Your task to perform on an android device: see tabs open on other devices in the chrome app Image 0: 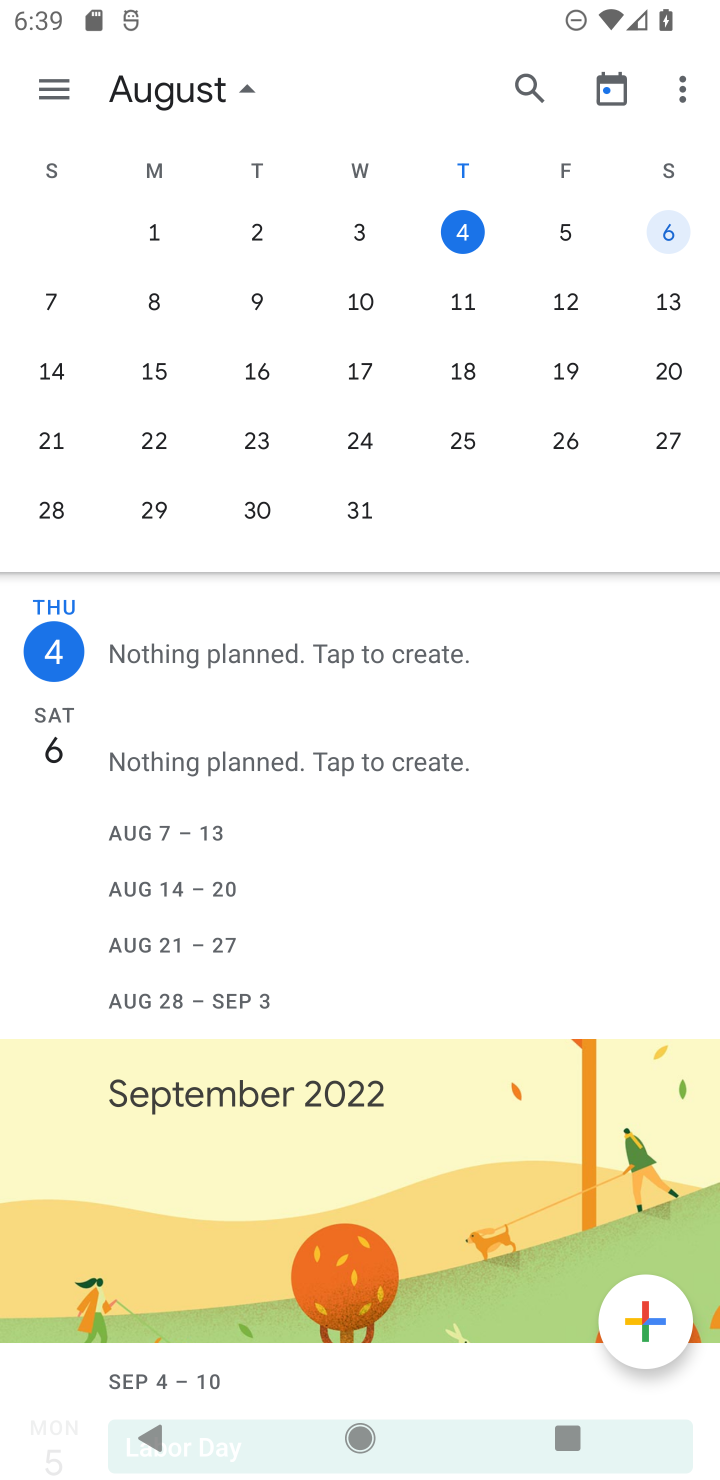
Step 0: press home button
Your task to perform on an android device: see tabs open on other devices in the chrome app Image 1: 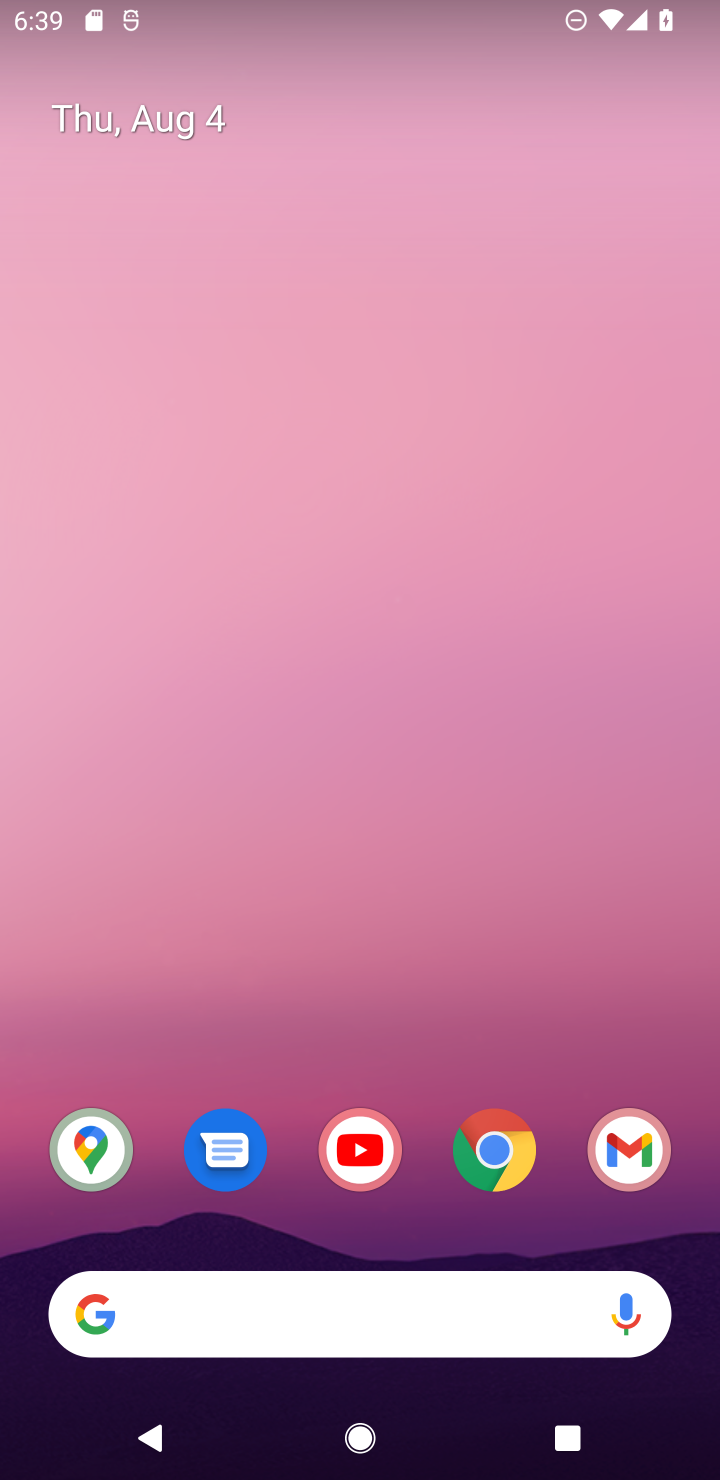
Step 1: drag from (268, 1163) to (388, 11)
Your task to perform on an android device: see tabs open on other devices in the chrome app Image 2: 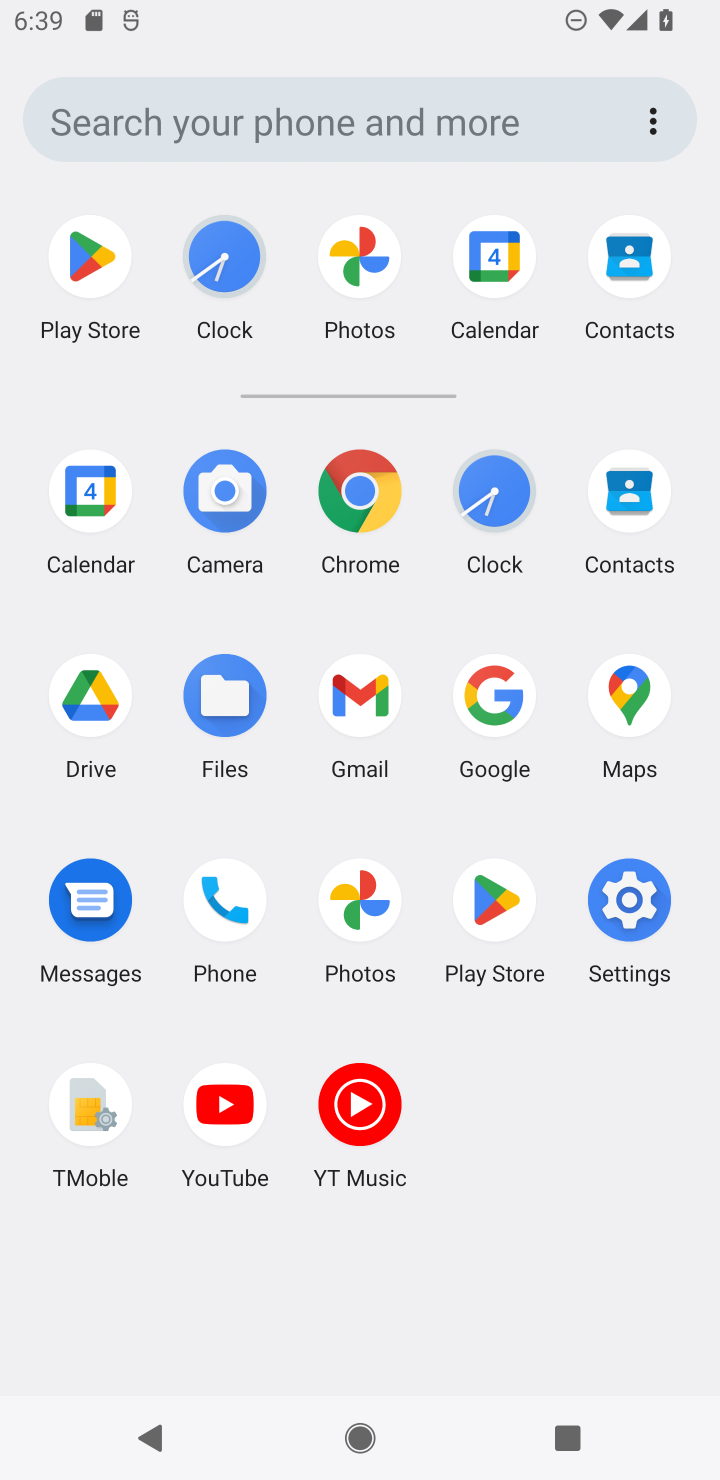
Step 2: click (358, 496)
Your task to perform on an android device: see tabs open on other devices in the chrome app Image 3: 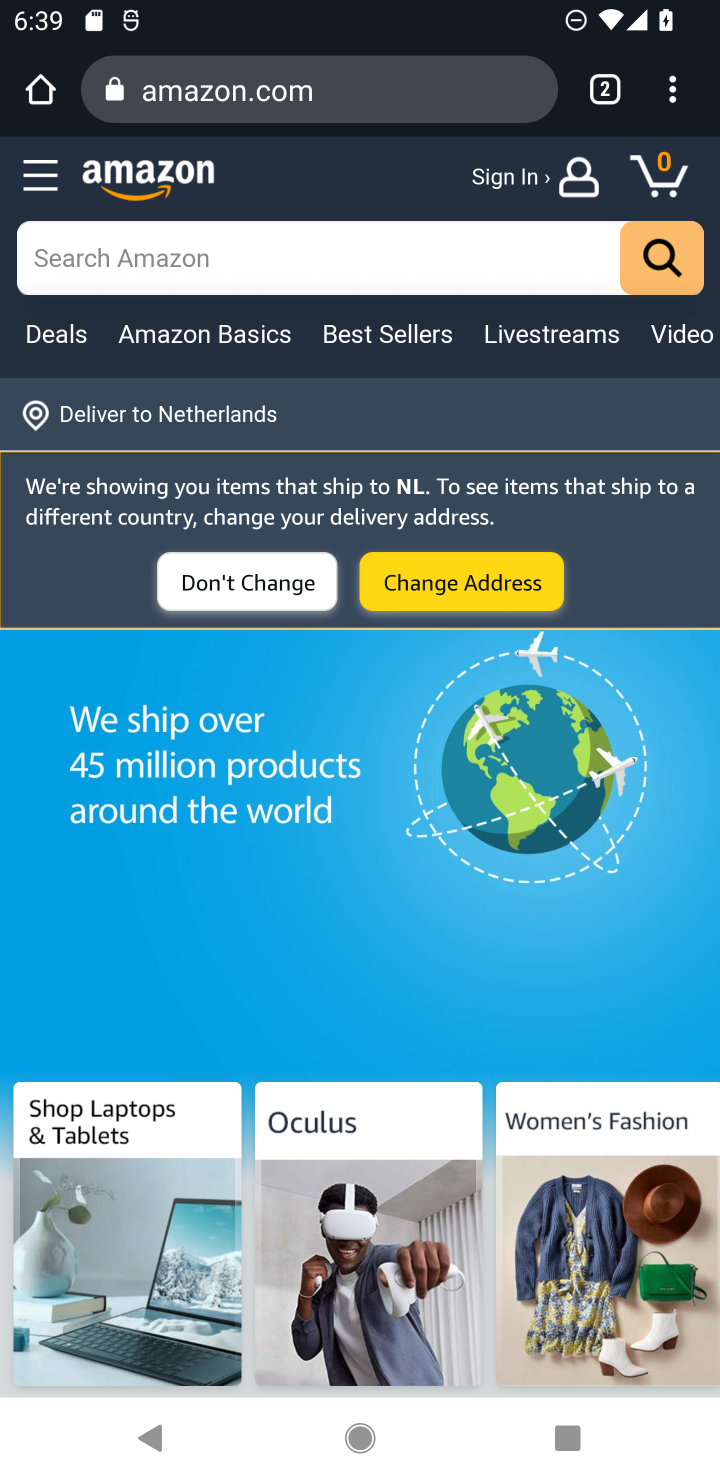
Step 3: drag from (675, 80) to (436, 707)
Your task to perform on an android device: see tabs open on other devices in the chrome app Image 4: 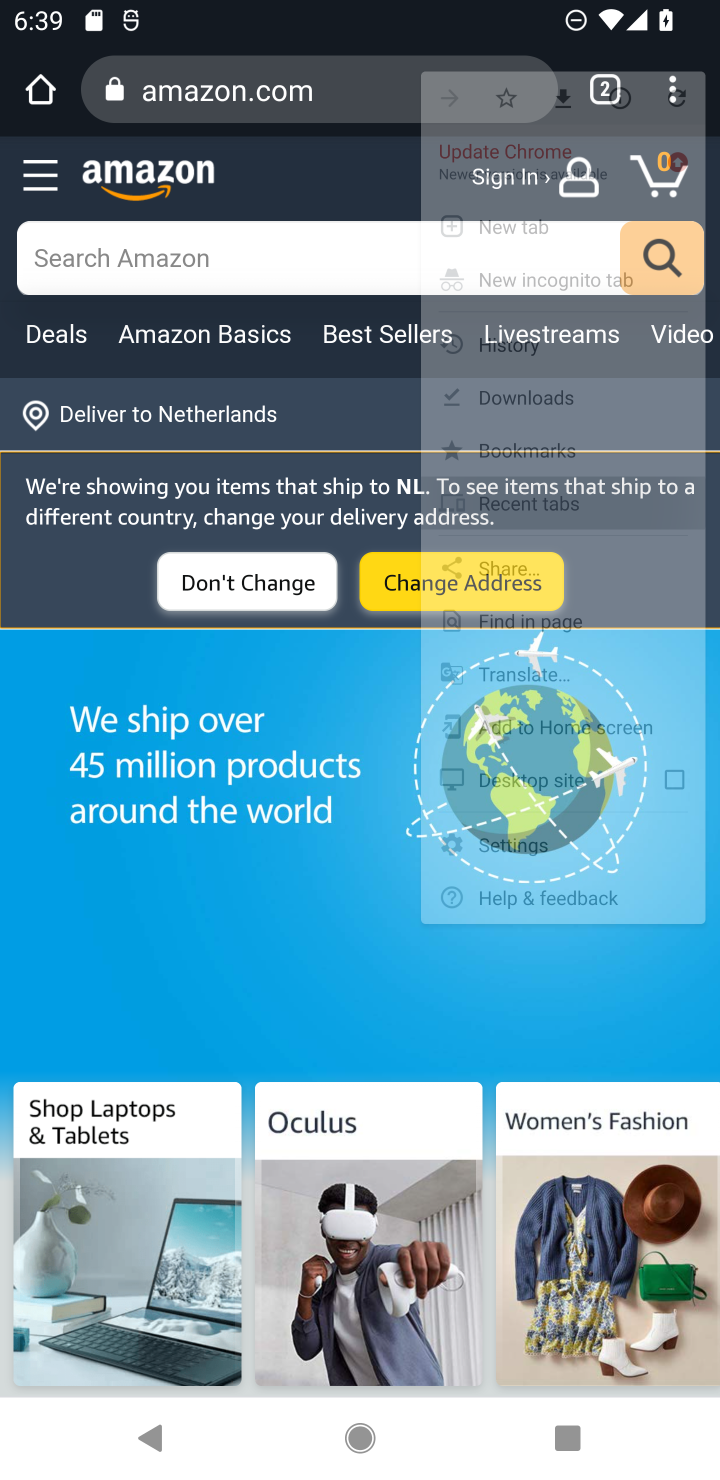
Step 4: click (436, 707)
Your task to perform on an android device: see tabs open on other devices in the chrome app Image 5: 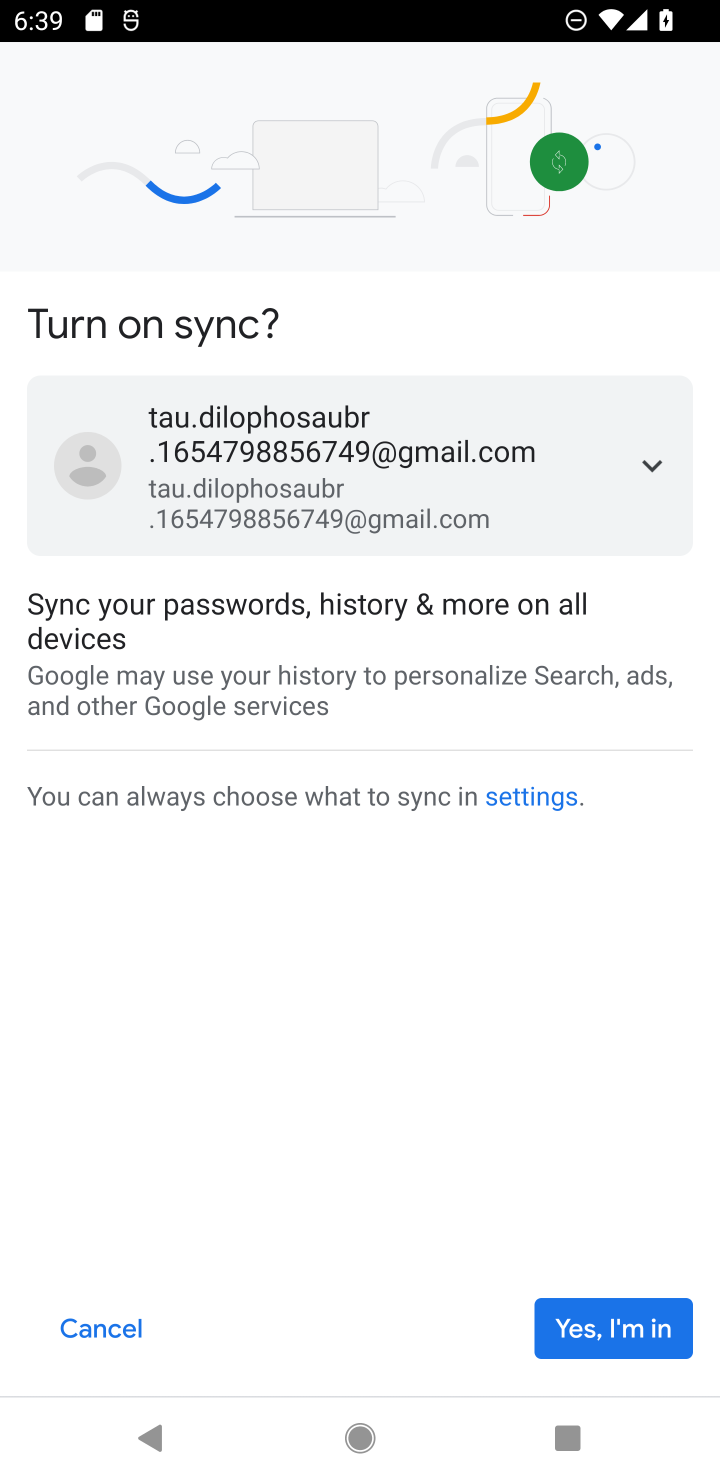
Step 5: click (98, 1327)
Your task to perform on an android device: see tabs open on other devices in the chrome app Image 6: 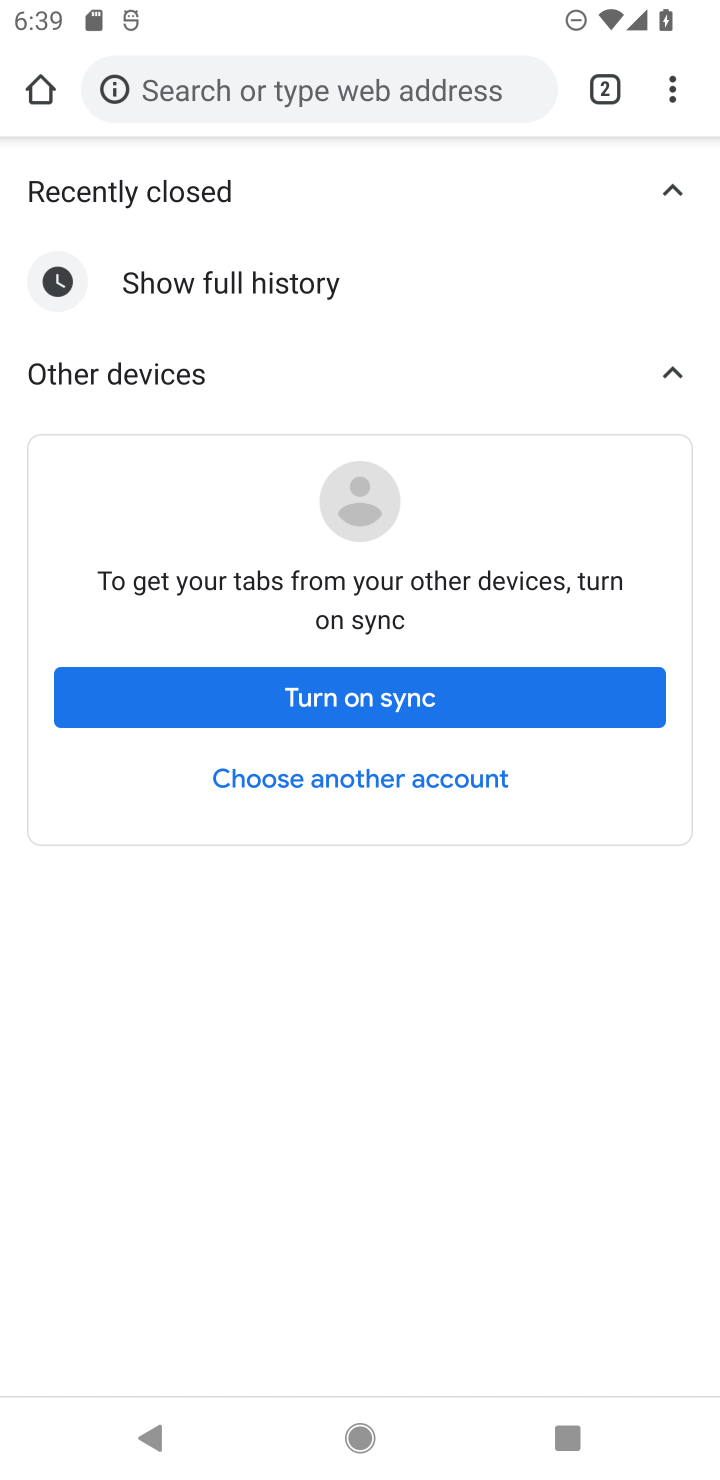
Step 6: task complete